Your task to perform on an android device: Open the phone app and click the voicemail tab. Image 0: 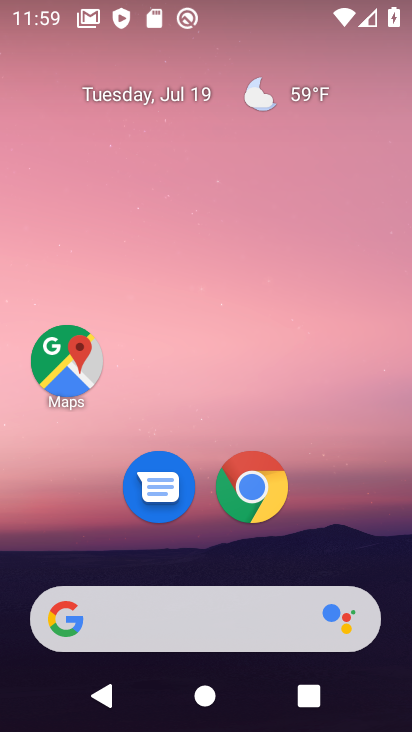
Step 0: drag from (102, 548) to (225, 5)
Your task to perform on an android device: Open the phone app and click the voicemail tab. Image 1: 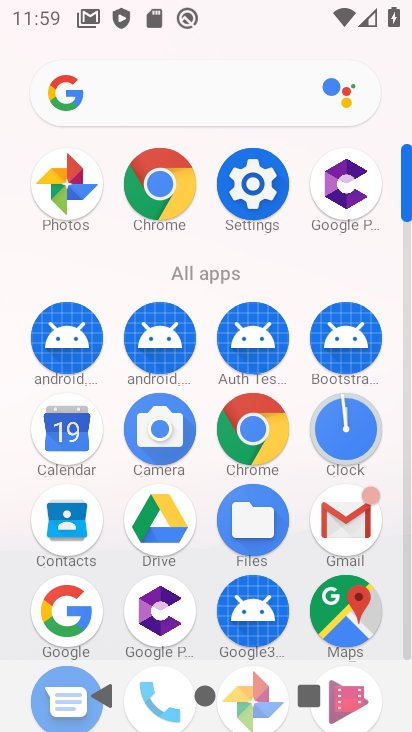
Step 1: drag from (188, 591) to (317, 98)
Your task to perform on an android device: Open the phone app and click the voicemail tab. Image 2: 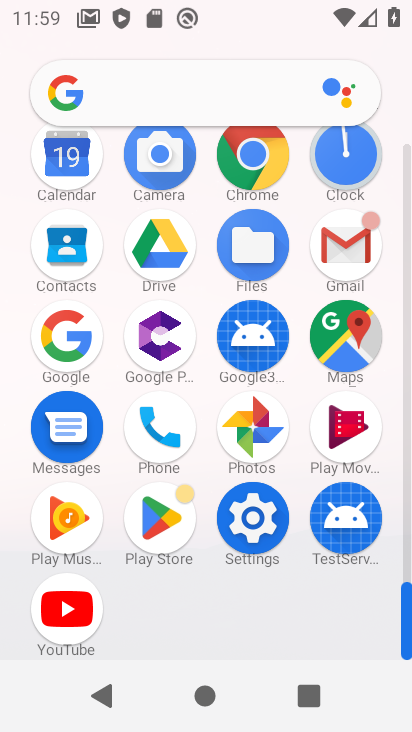
Step 2: click (159, 437)
Your task to perform on an android device: Open the phone app and click the voicemail tab. Image 3: 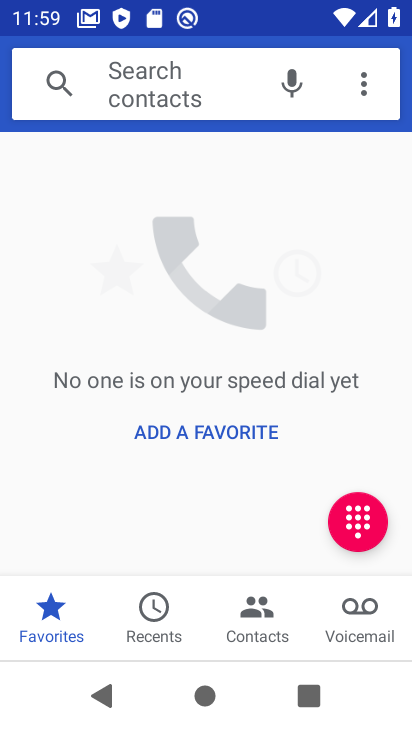
Step 3: click (372, 640)
Your task to perform on an android device: Open the phone app and click the voicemail tab. Image 4: 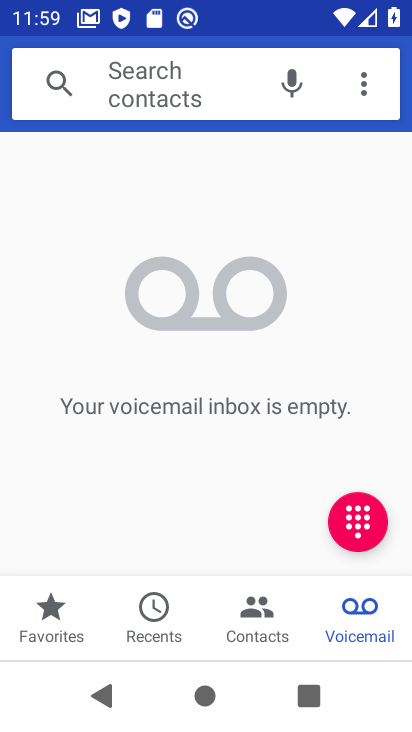
Step 4: task complete